Your task to perform on an android device: What is the recent news? Image 0: 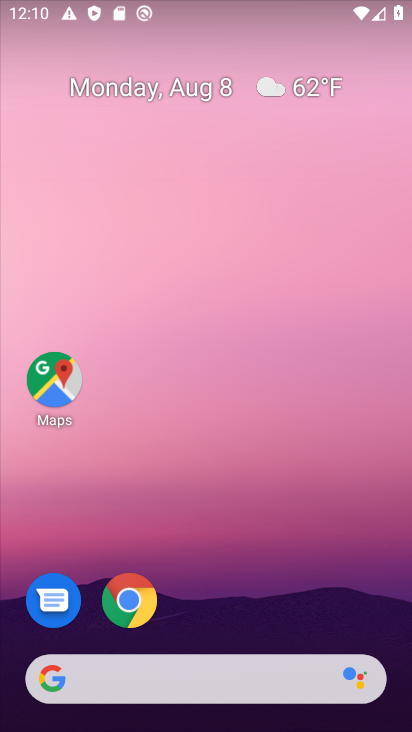
Step 0: drag from (221, 580) to (237, 153)
Your task to perform on an android device: What is the recent news? Image 1: 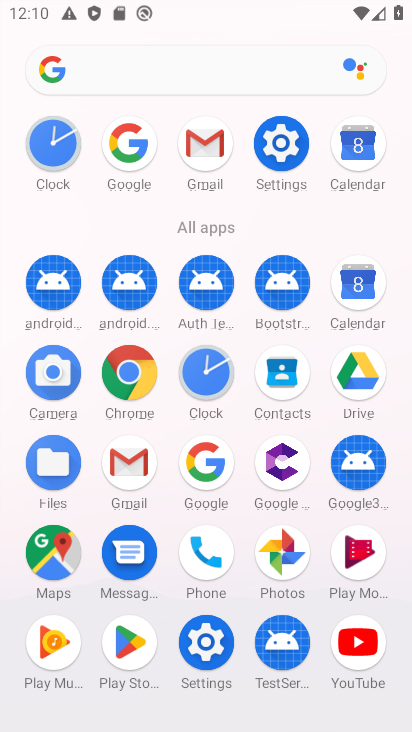
Step 1: click (210, 462)
Your task to perform on an android device: What is the recent news? Image 2: 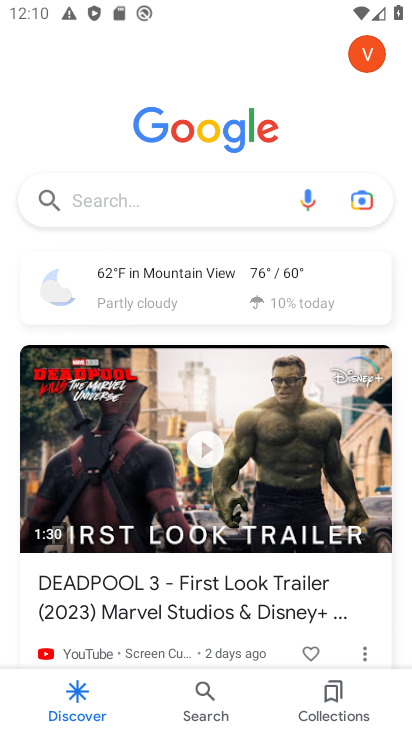
Step 2: click (132, 205)
Your task to perform on an android device: What is the recent news? Image 3: 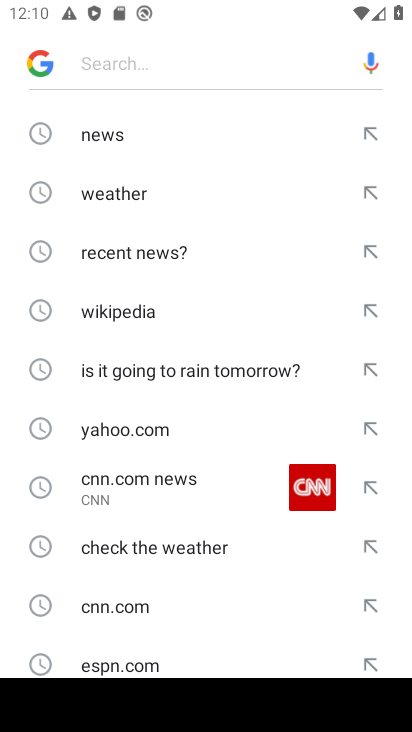
Step 3: click (132, 128)
Your task to perform on an android device: What is the recent news? Image 4: 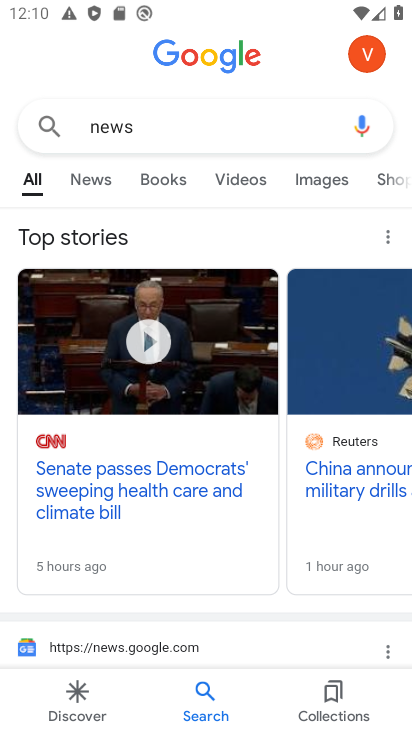
Step 4: click (75, 179)
Your task to perform on an android device: What is the recent news? Image 5: 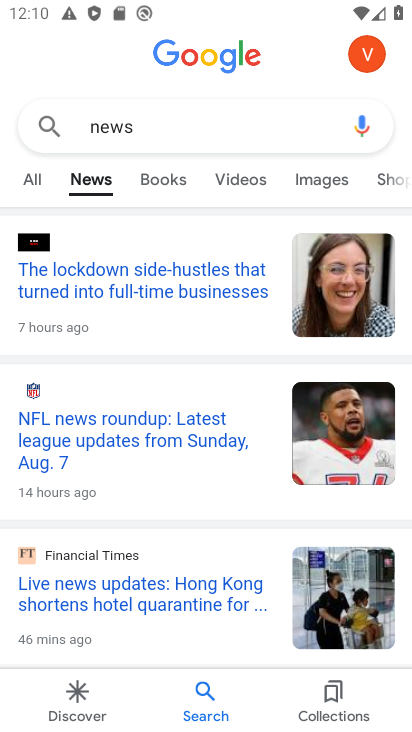
Step 5: task complete